Your task to perform on an android device: allow notifications from all sites in the chrome app Image 0: 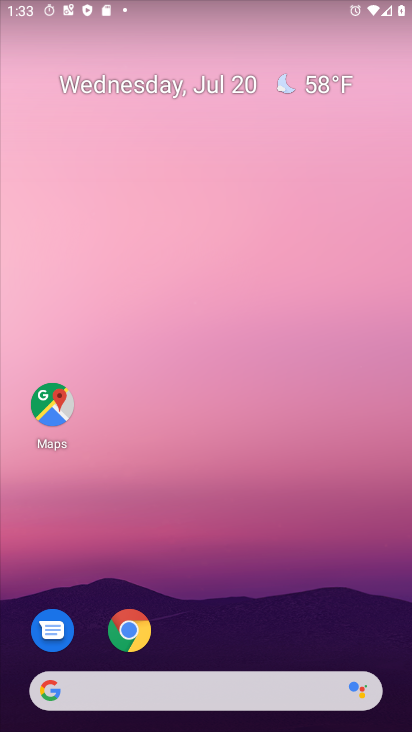
Step 0: click (126, 628)
Your task to perform on an android device: allow notifications from all sites in the chrome app Image 1: 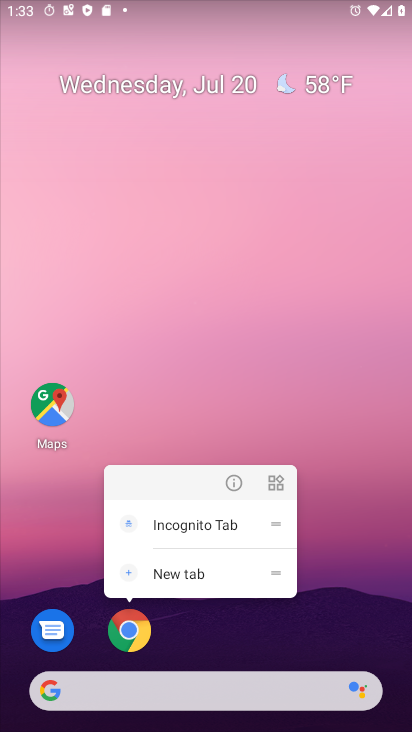
Step 1: click (136, 634)
Your task to perform on an android device: allow notifications from all sites in the chrome app Image 2: 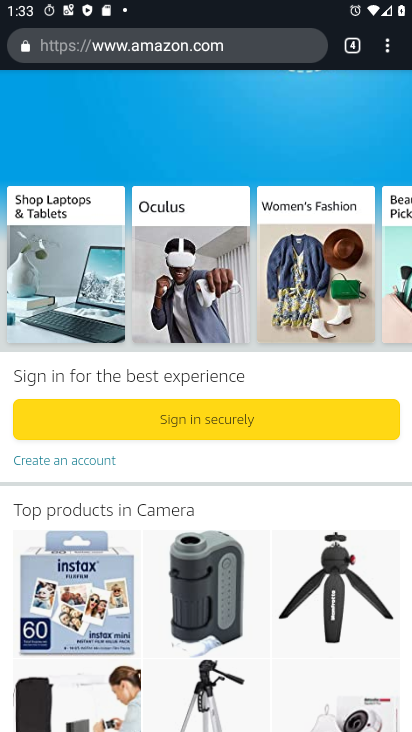
Step 2: drag from (388, 46) to (260, 553)
Your task to perform on an android device: allow notifications from all sites in the chrome app Image 3: 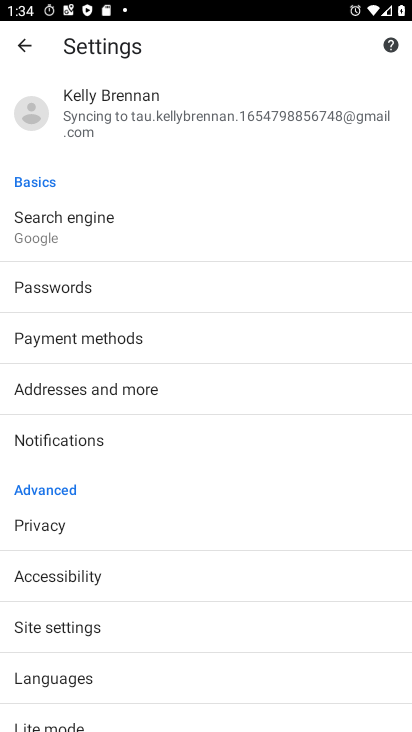
Step 3: click (89, 626)
Your task to perform on an android device: allow notifications from all sites in the chrome app Image 4: 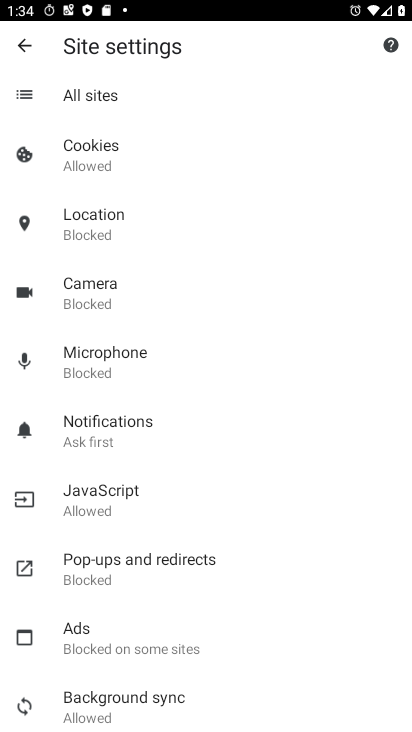
Step 4: click (112, 427)
Your task to perform on an android device: allow notifications from all sites in the chrome app Image 5: 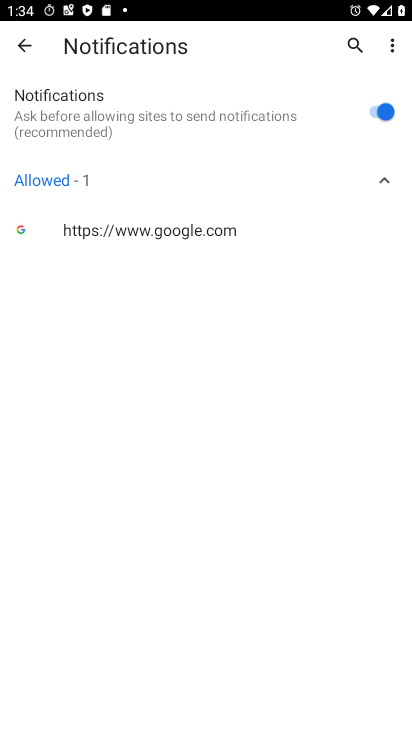
Step 5: task complete